Your task to perform on an android device: Do I have any events today? Image 0: 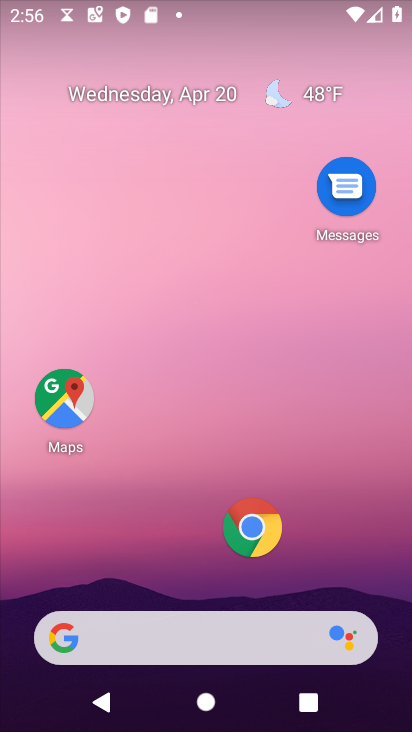
Step 0: drag from (137, 633) to (328, 12)
Your task to perform on an android device: Do I have any events today? Image 1: 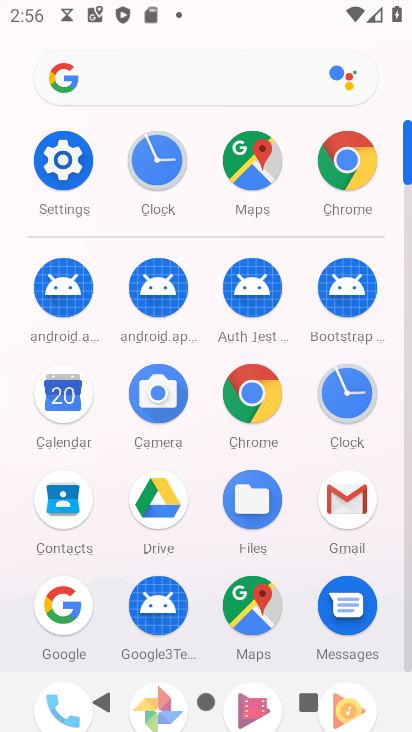
Step 1: click (64, 402)
Your task to perform on an android device: Do I have any events today? Image 2: 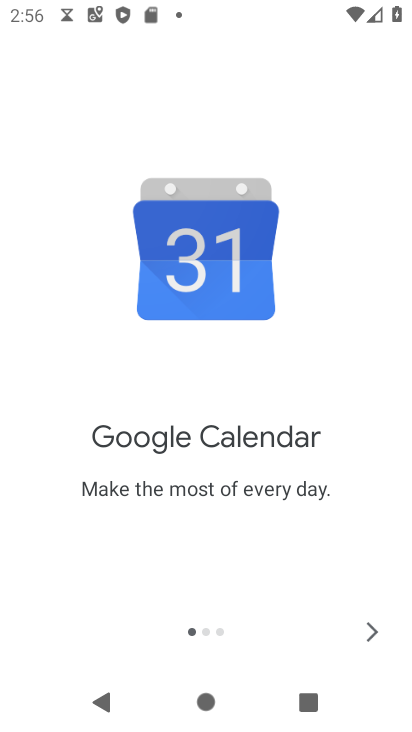
Step 2: click (377, 627)
Your task to perform on an android device: Do I have any events today? Image 3: 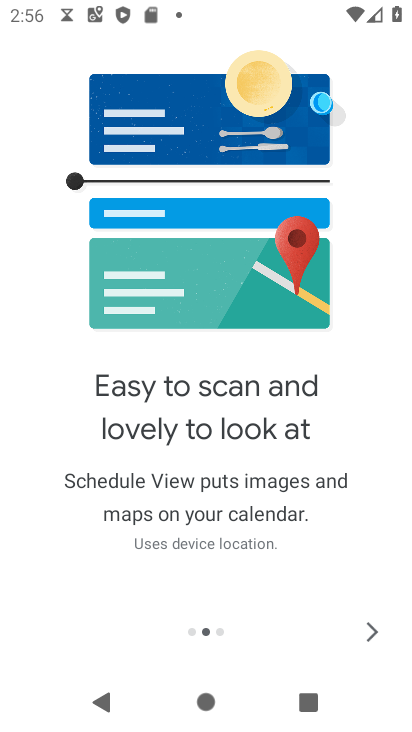
Step 3: click (365, 631)
Your task to perform on an android device: Do I have any events today? Image 4: 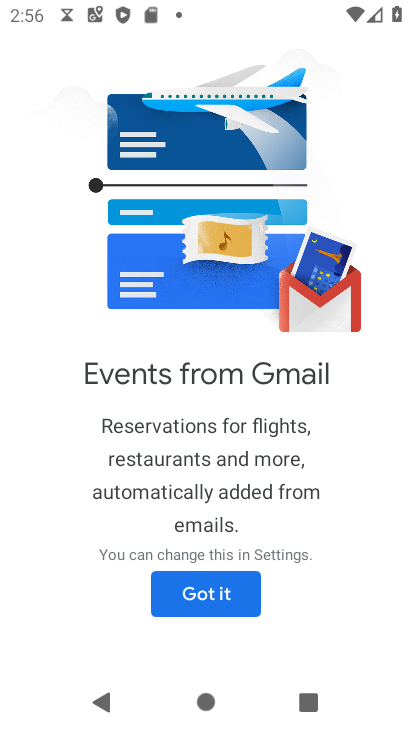
Step 4: click (238, 598)
Your task to perform on an android device: Do I have any events today? Image 5: 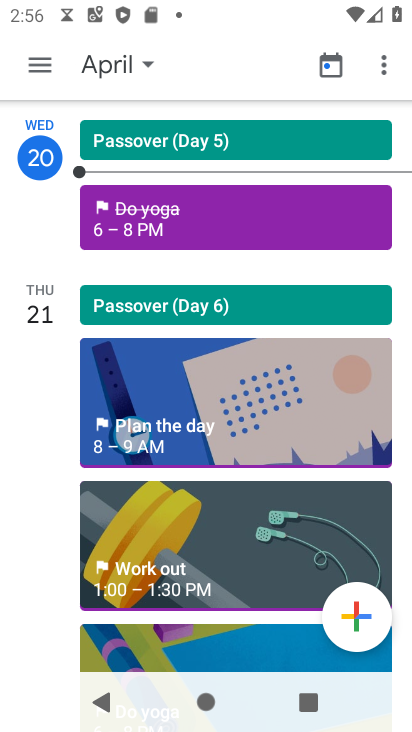
Step 5: click (89, 67)
Your task to perform on an android device: Do I have any events today? Image 6: 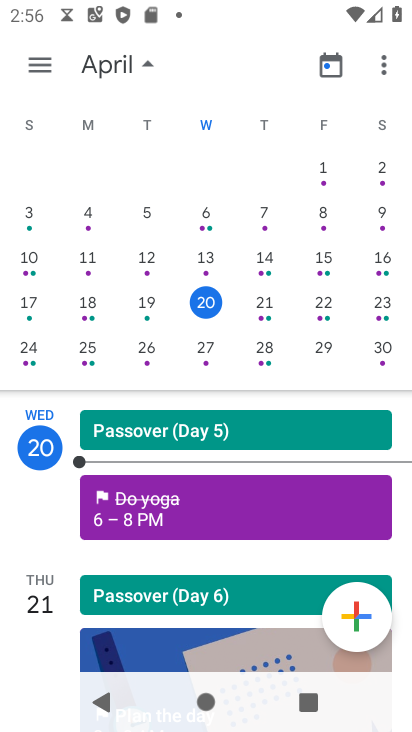
Step 6: click (200, 305)
Your task to perform on an android device: Do I have any events today? Image 7: 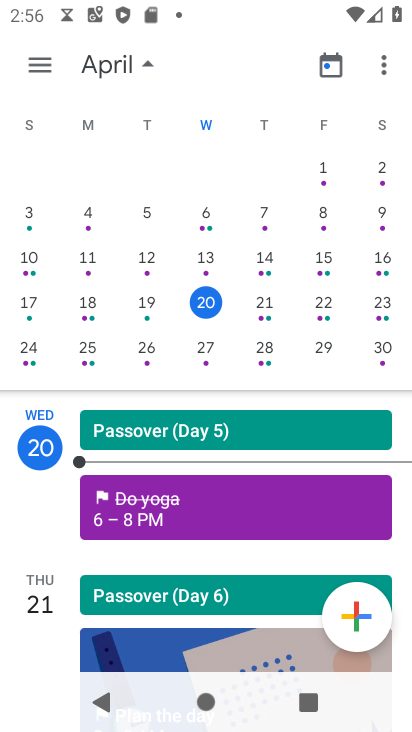
Step 7: click (43, 73)
Your task to perform on an android device: Do I have any events today? Image 8: 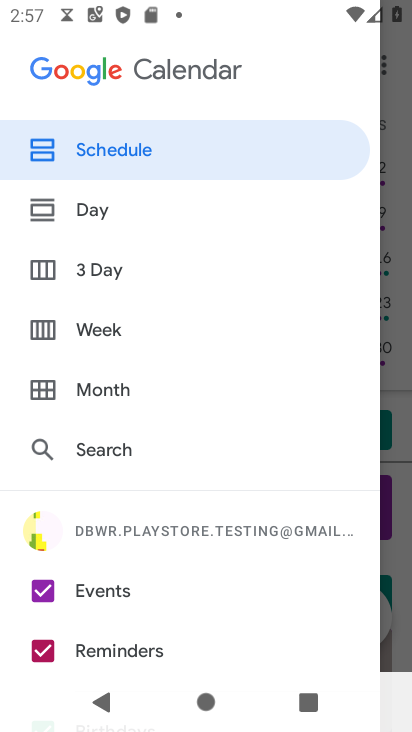
Step 8: click (94, 212)
Your task to perform on an android device: Do I have any events today? Image 9: 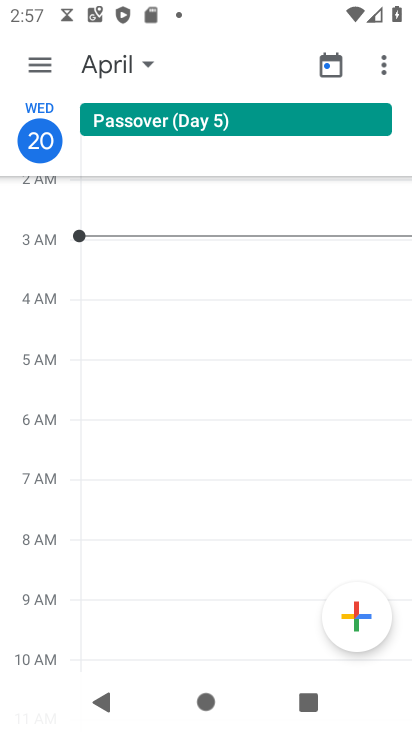
Step 9: drag from (144, 233) to (122, 527)
Your task to perform on an android device: Do I have any events today? Image 10: 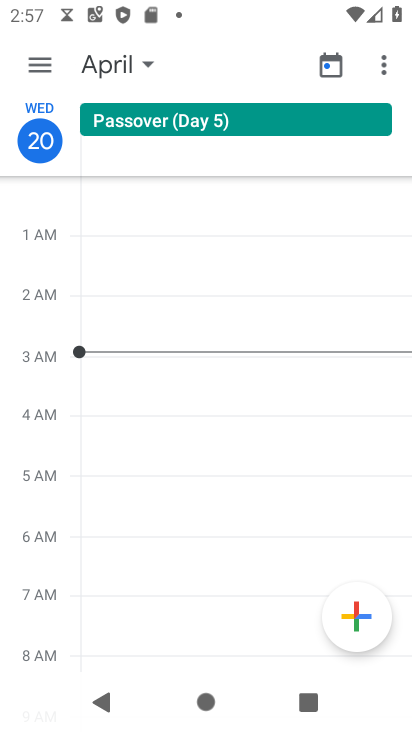
Step 10: click (46, 64)
Your task to perform on an android device: Do I have any events today? Image 11: 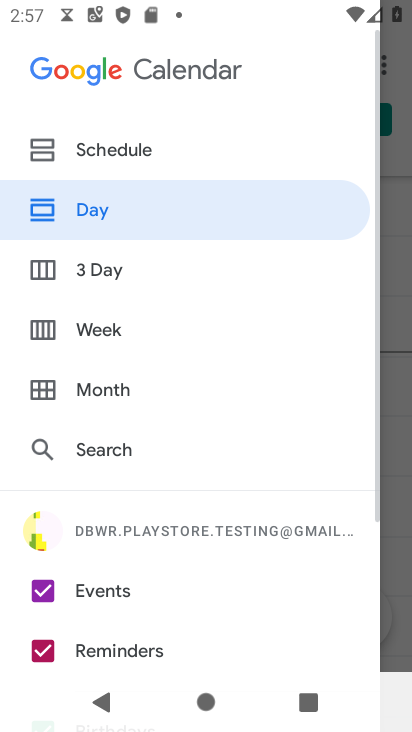
Step 11: click (133, 143)
Your task to perform on an android device: Do I have any events today? Image 12: 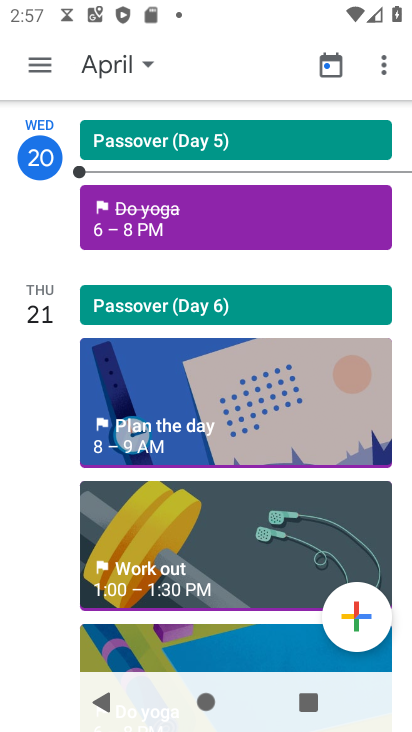
Step 12: click (216, 226)
Your task to perform on an android device: Do I have any events today? Image 13: 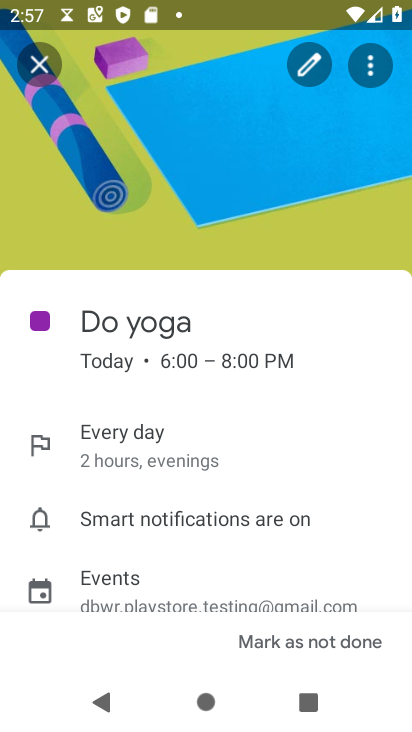
Step 13: task complete